Your task to perform on an android device: set the timer Image 0: 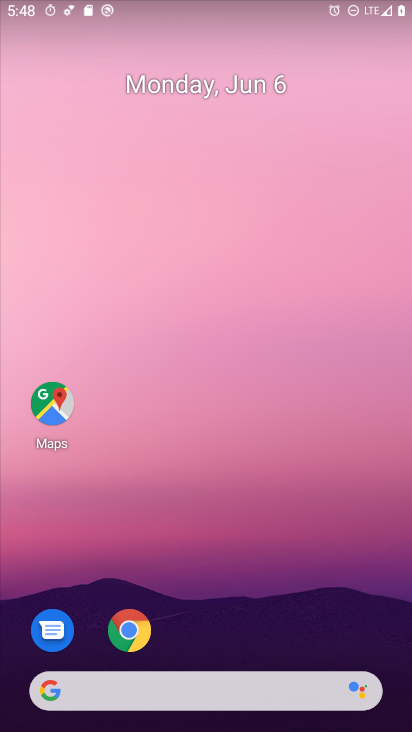
Step 0: drag from (290, 417) to (226, 7)
Your task to perform on an android device: set the timer Image 1: 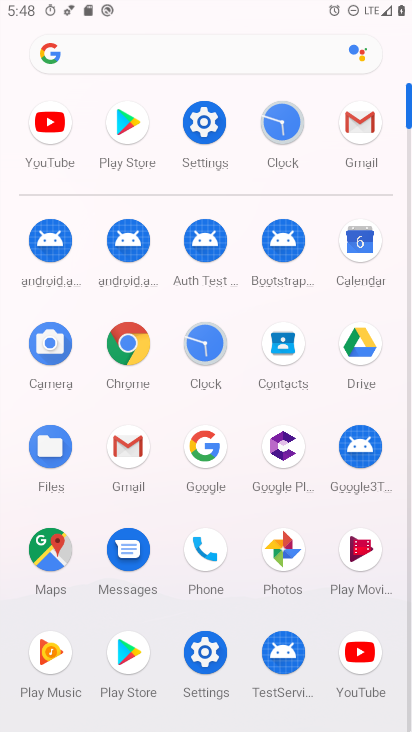
Step 1: click (290, 120)
Your task to perform on an android device: set the timer Image 2: 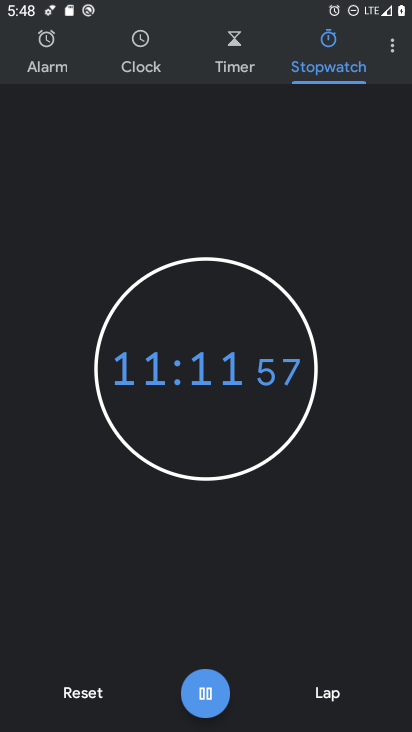
Step 2: click (222, 49)
Your task to perform on an android device: set the timer Image 3: 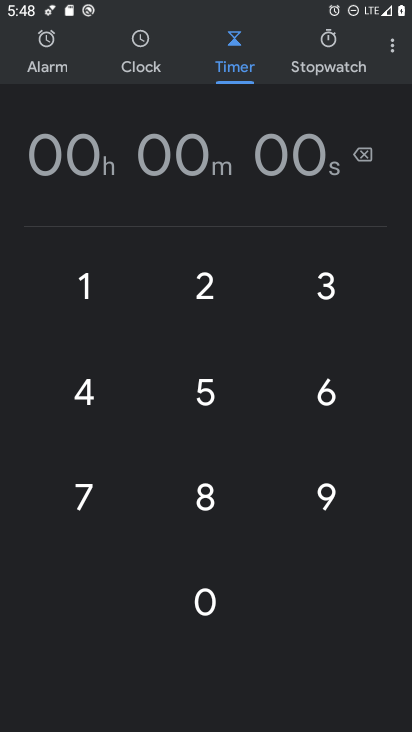
Step 3: click (91, 278)
Your task to perform on an android device: set the timer Image 4: 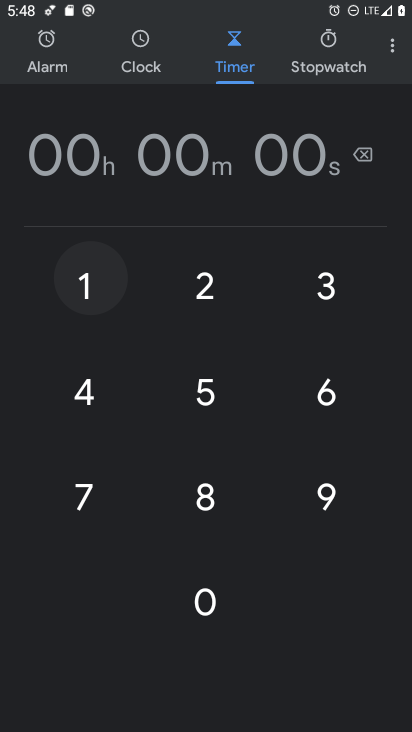
Step 4: click (95, 277)
Your task to perform on an android device: set the timer Image 5: 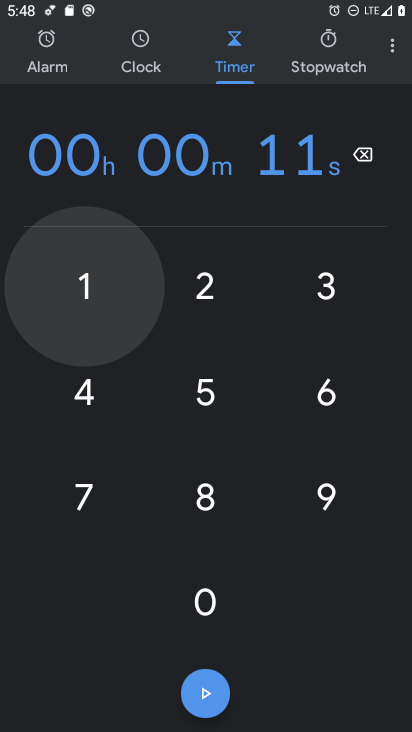
Step 5: click (97, 272)
Your task to perform on an android device: set the timer Image 6: 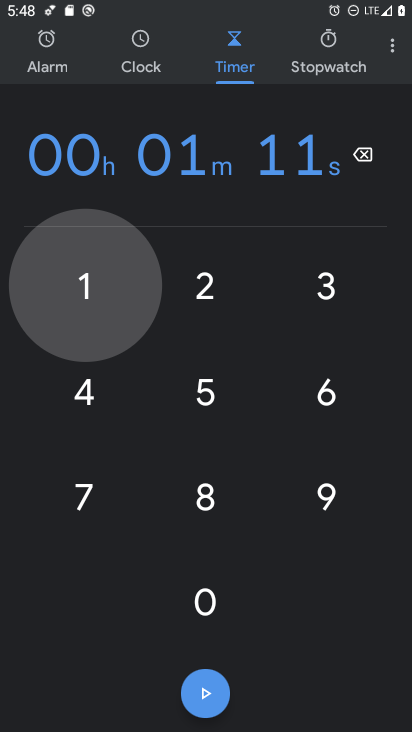
Step 6: click (98, 271)
Your task to perform on an android device: set the timer Image 7: 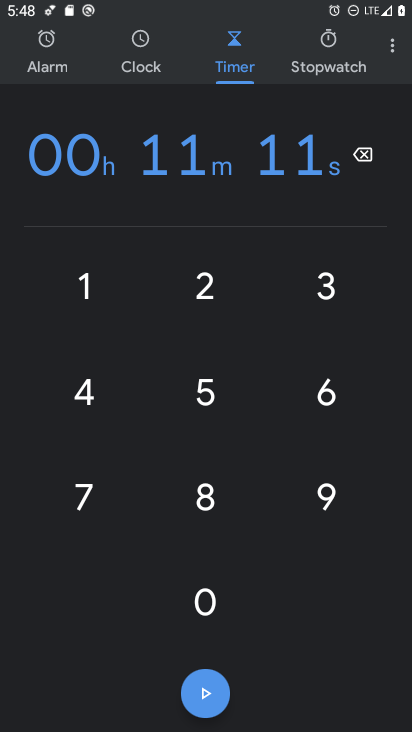
Step 7: click (98, 271)
Your task to perform on an android device: set the timer Image 8: 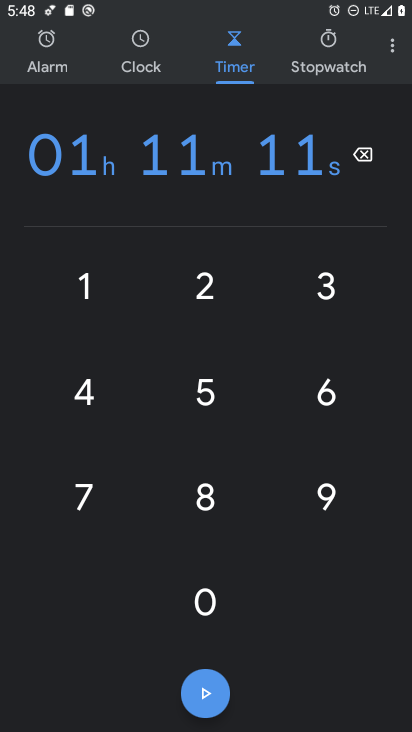
Step 8: click (210, 715)
Your task to perform on an android device: set the timer Image 9: 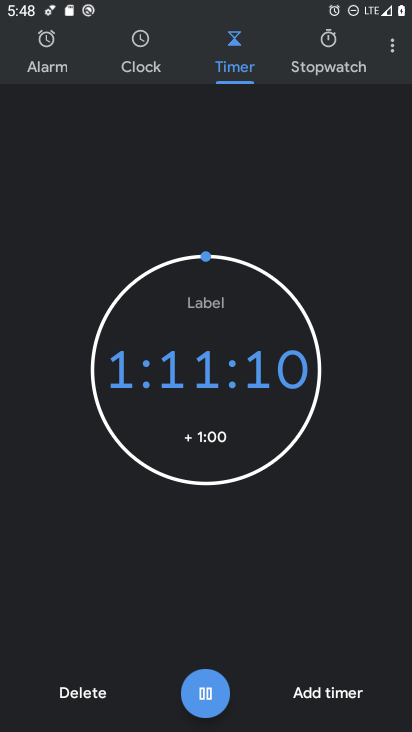
Step 9: task complete